Your task to perform on an android device: Check the weather Image 0: 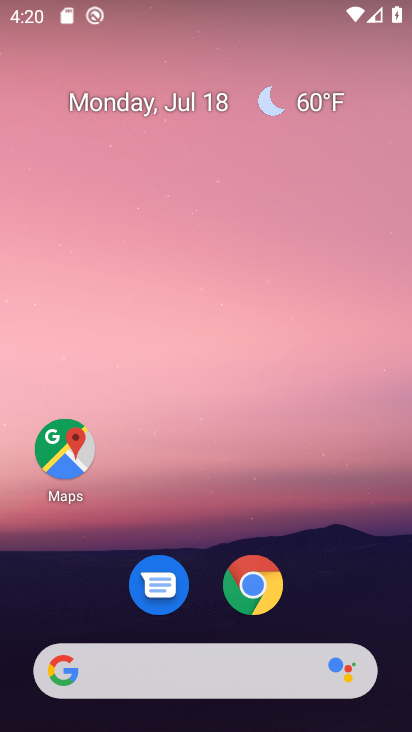
Step 0: click (303, 95)
Your task to perform on an android device: Check the weather Image 1: 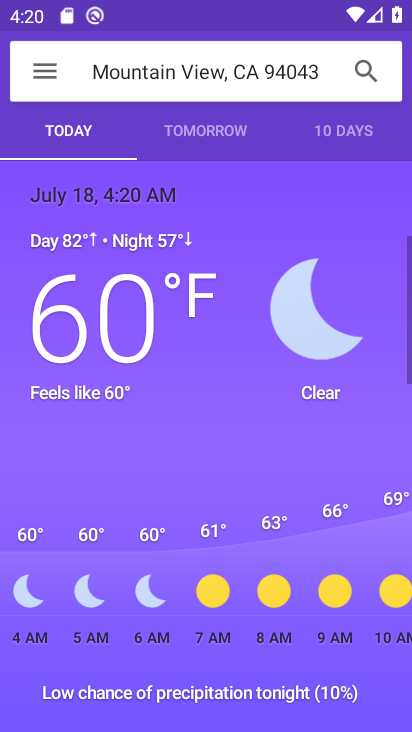
Step 1: task complete